Your task to perform on an android device: open chrome privacy settings Image 0: 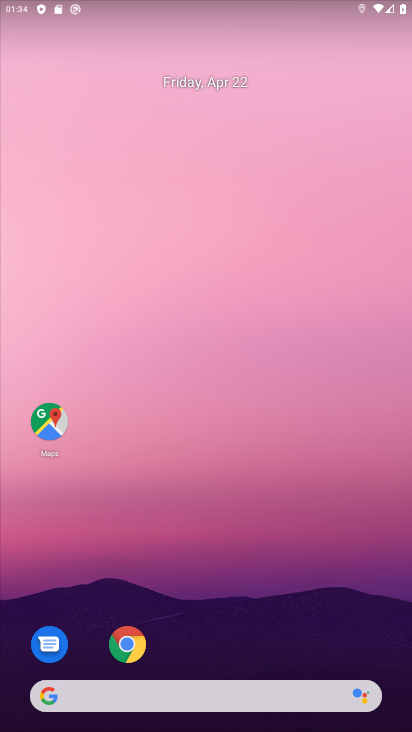
Step 0: drag from (333, 619) to (306, 323)
Your task to perform on an android device: open chrome privacy settings Image 1: 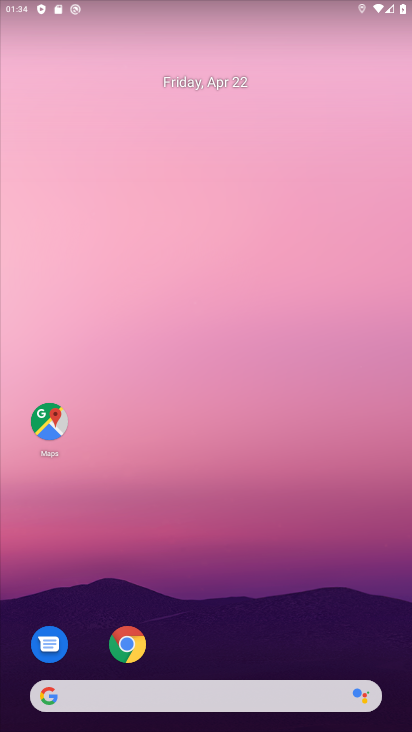
Step 1: drag from (200, 647) to (190, 301)
Your task to perform on an android device: open chrome privacy settings Image 2: 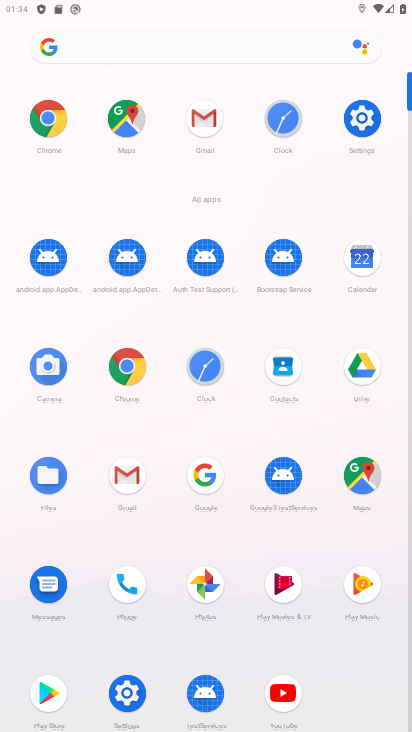
Step 2: click (52, 128)
Your task to perform on an android device: open chrome privacy settings Image 3: 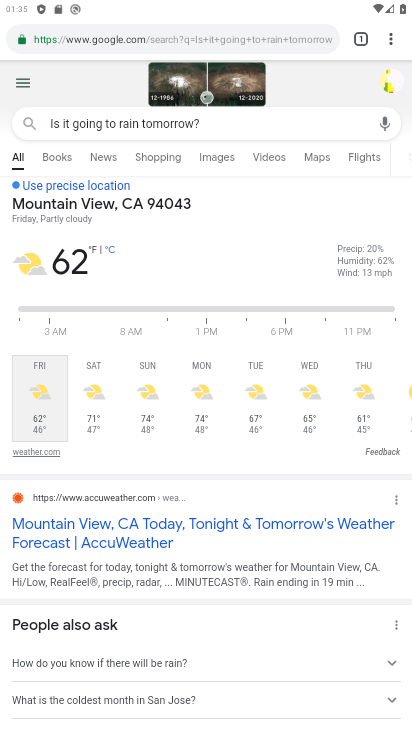
Step 3: click (392, 47)
Your task to perform on an android device: open chrome privacy settings Image 4: 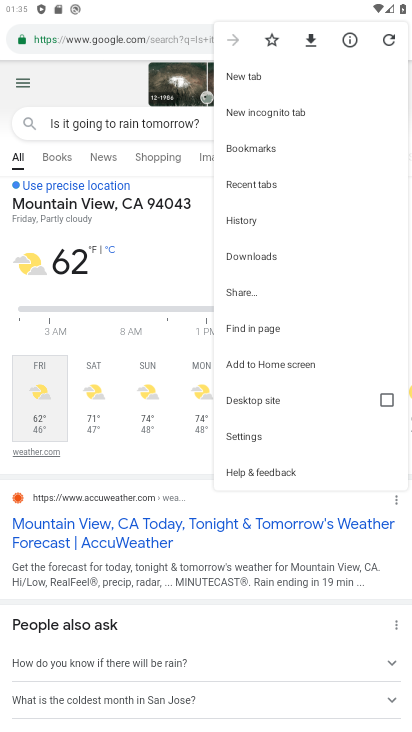
Step 4: click (307, 431)
Your task to perform on an android device: open chrome privacy settings Image 5: 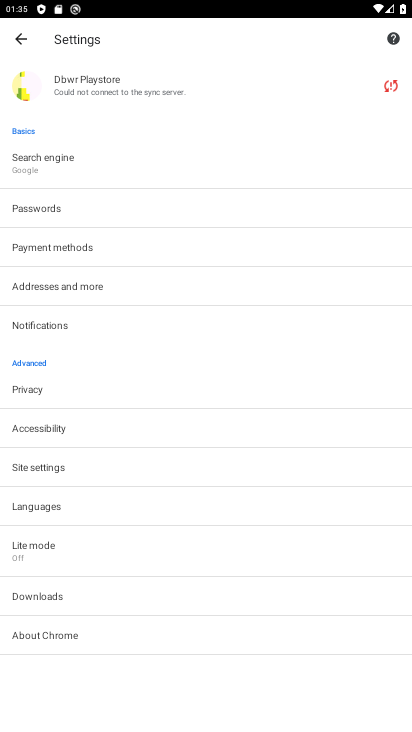
Step 5: click (207, 387)
Your task to perform on an android device: open chrome privacy settings Image 6: 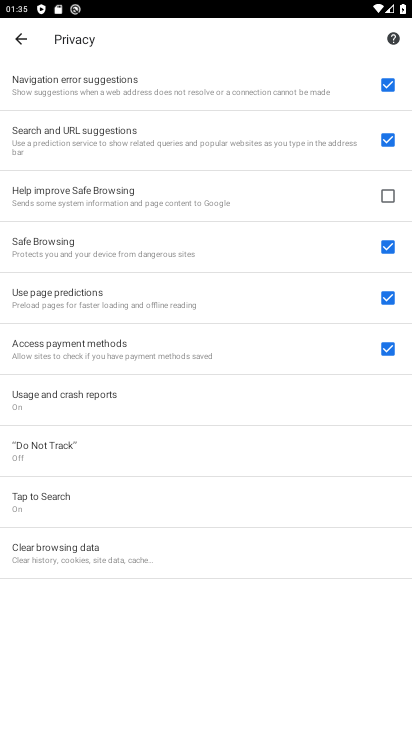
Step 6: task complete